Your task to perform on an android device: Open Android settings Image 0: 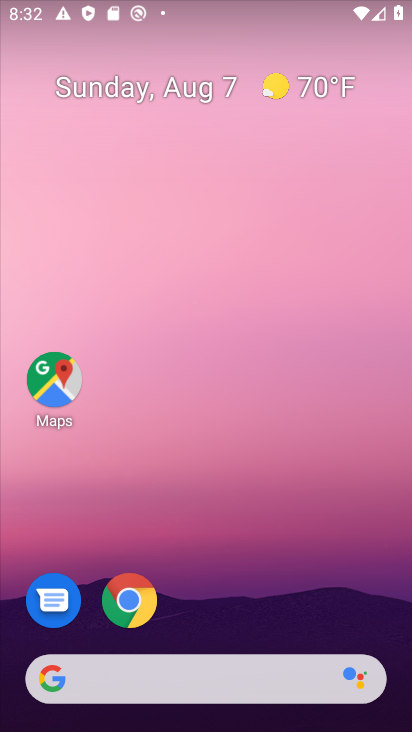
Step 0: drag from (196, 603) to (200, 217)
Your task to perform on an android device: Open Android settings Image 1: 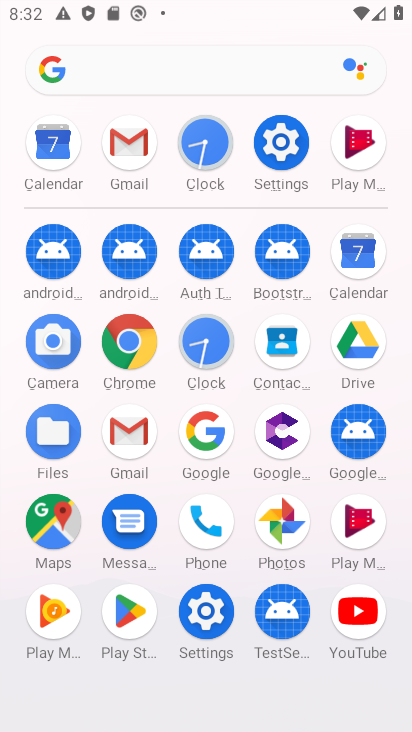
Step 1: click (278, 140)
Your task to perform on an android device: Open Android settings Image 2: 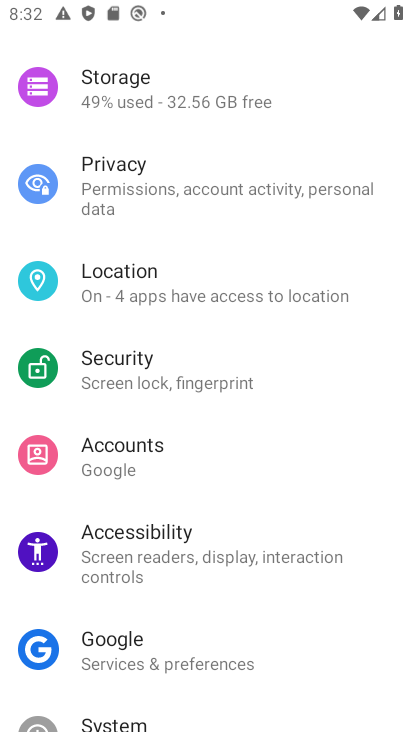
Step 2: drag from (185, 229) to (73, 4)
Your task to perform on an android device: Open Android settings Image 3: 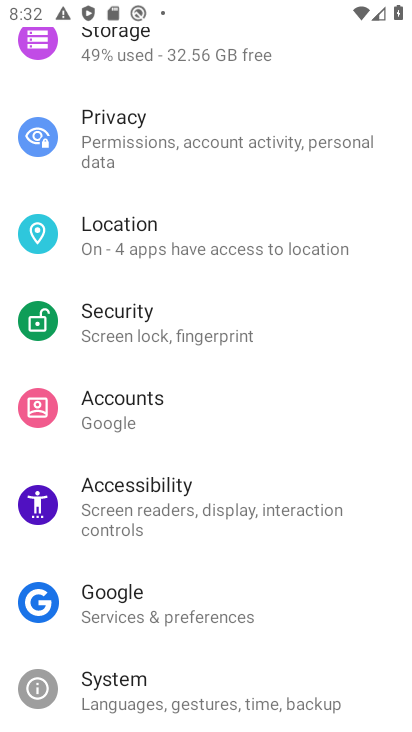
Step 3: drag from (227, 525) to (272, 52)
Your task to perform on an android device: Open Android settings Image 4: 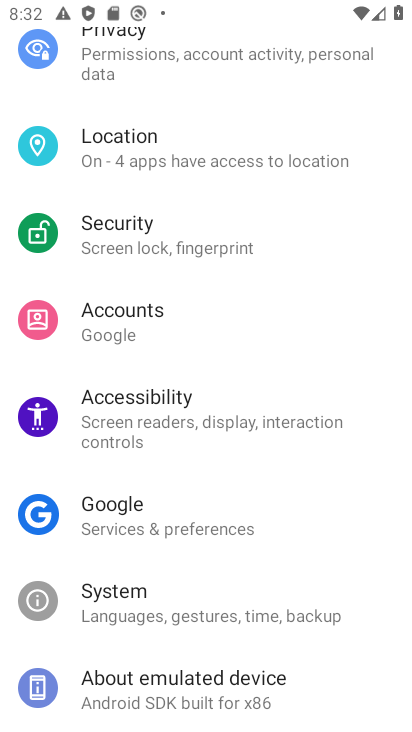
Step 4: click (97, 702)
Your task to perform on an android device: Open Android settings Image 5: 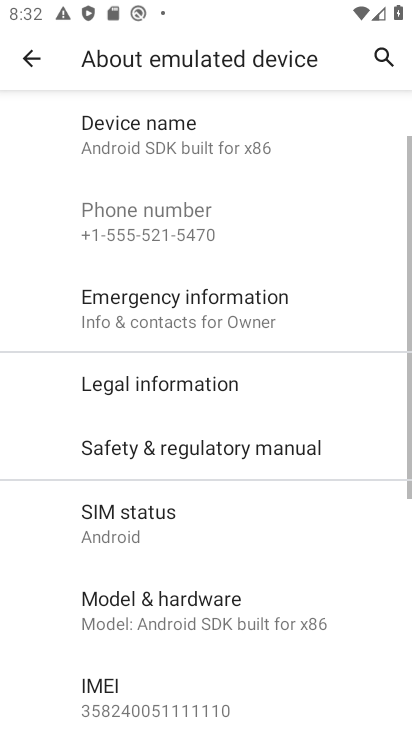
Step 5: task complete